Your task to perform on an android device: Go to Android settings Image 0: 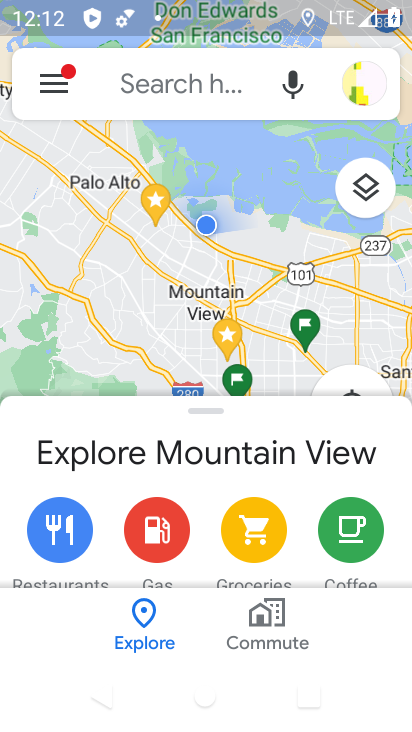
Step 0: press back button
Your task to perform on an android device: Go to Android settings Image 1: 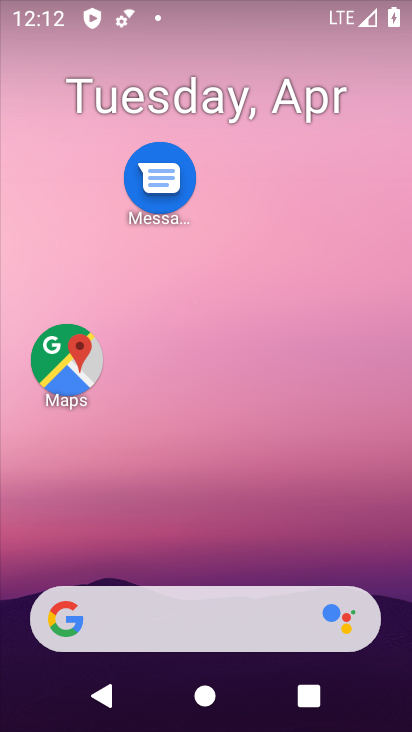
Step 1: drag from (208, 728) to (198, 43)
Your task to perform on an android device: Go to Android settings Image 2: 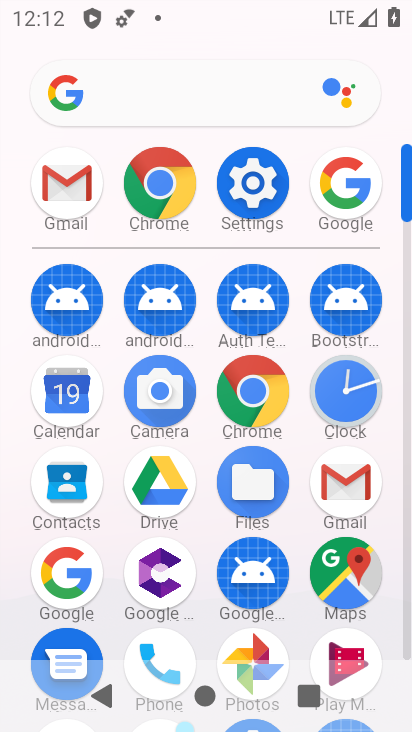
Step 2: click (258, 180)
Your task to perform on an android device: Go to Android settings Image 3: 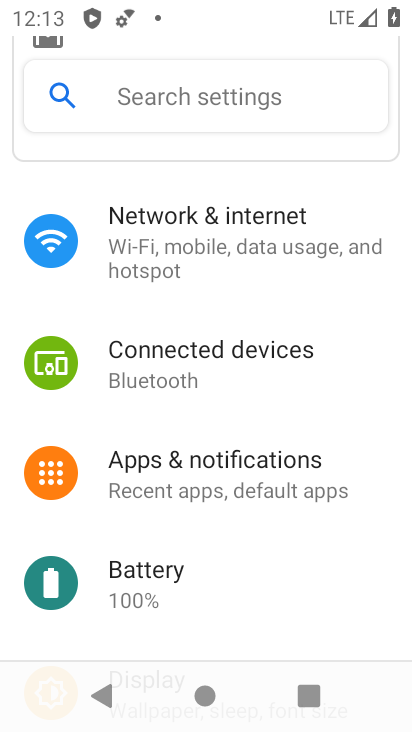
Step 3: drag from (206, 612) to (189, 195)
Your task to perform on an android device: Go to Android settings Image 4: 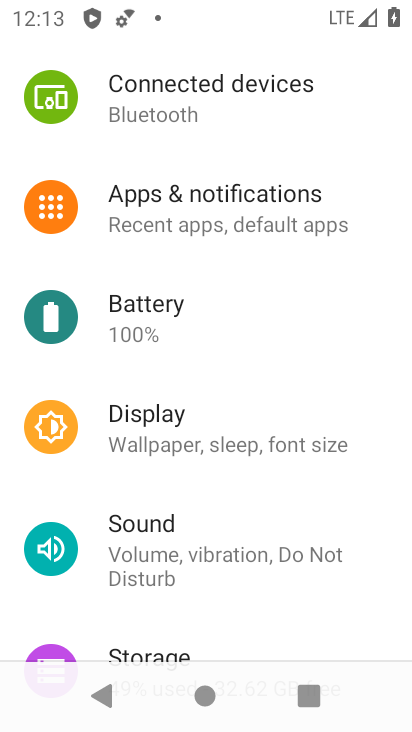
Step 4: drag from (183, 602) to (214, 180)
Your task to perform on an android device: Go to Android settings Image 5: 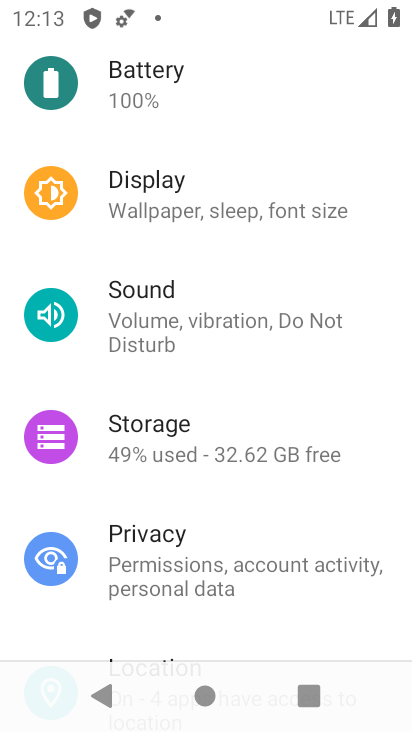
Step 5: drag from (203, 451) to (203, 120)
Your task to perform on an android device: Go to Android settings Image 6: 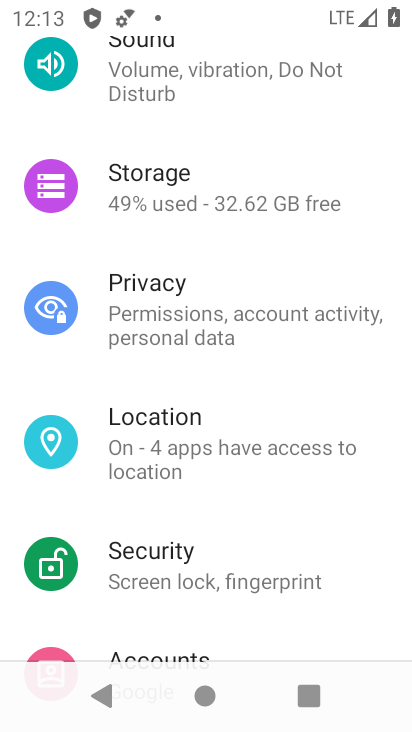
Step 6: drag from (216, 632) to (173, 56)
Your task to perform on an android device: Go to Android settings Image 7: 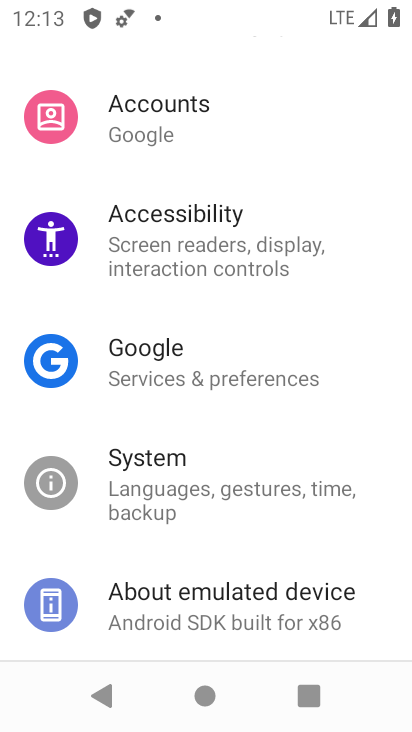
Step 7: drag from (177, 624) to (164, 196)
Your task to perform on an android device: Go to Android settings Image 8: 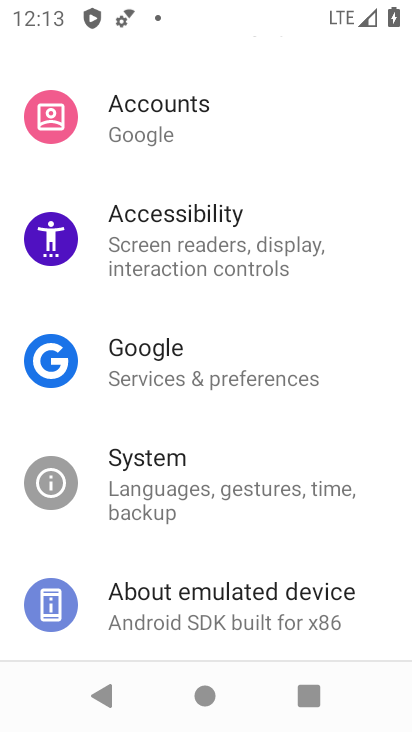
Step 8: click (179, 601)
Your task to perform on an android device: Go to Android settings Image 9: 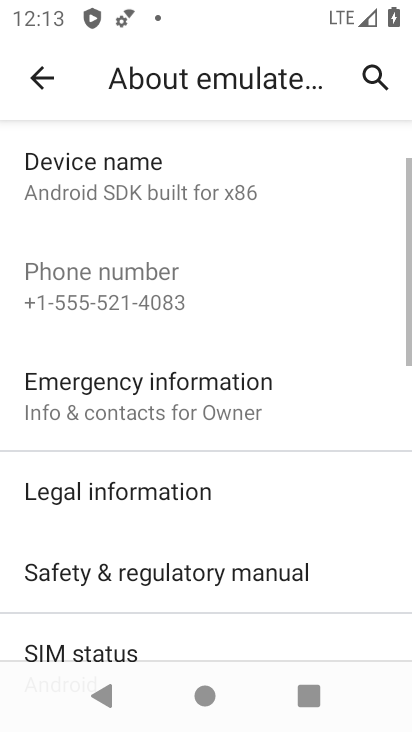
Step 9: task complete